Your task to perform on an android device: open sync settings in chrome Image 0: 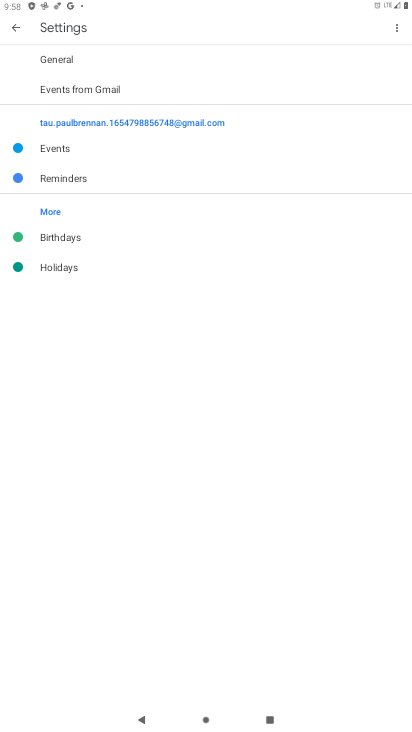
Step 0: press home button
Your task to perform on an android device: open sync settings in chrome Image 1: 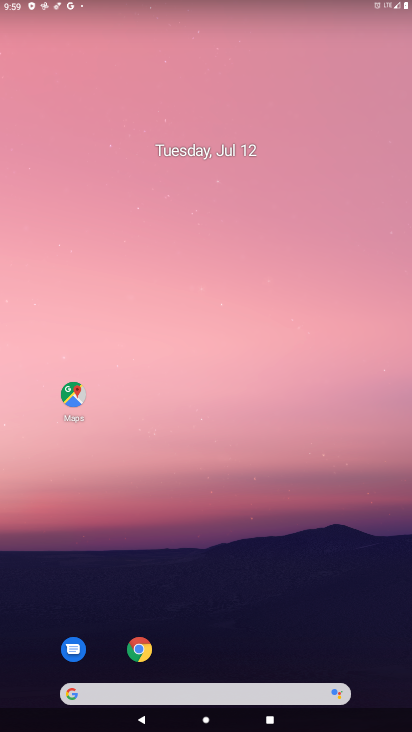
Step 1: click (147, 656)
Your task to perform on an android device: open sync settings in chrome Image 2: 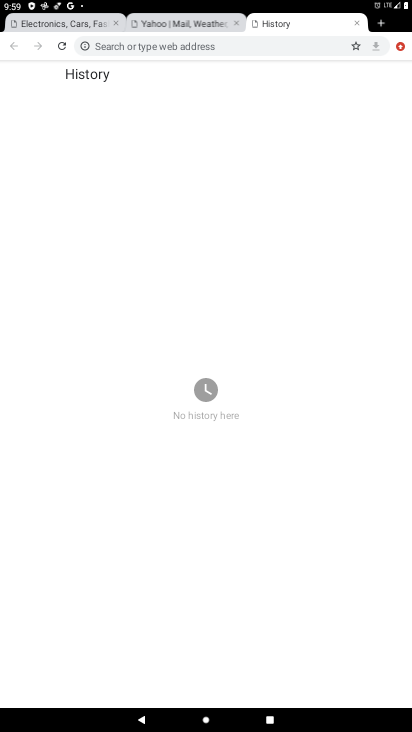
Step 2: click (279, 45)
Your task to perform on an android device: open sync settings in chrome Image 3: 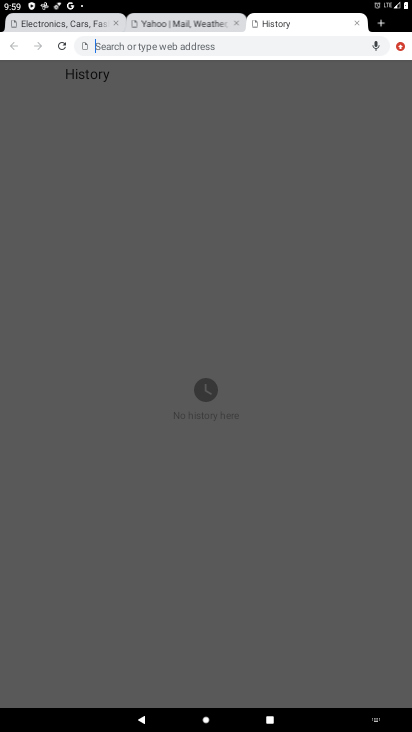
Step 3: click (398, 44)
Your task to perform on an android device: open sync settings in chrome Image 4: 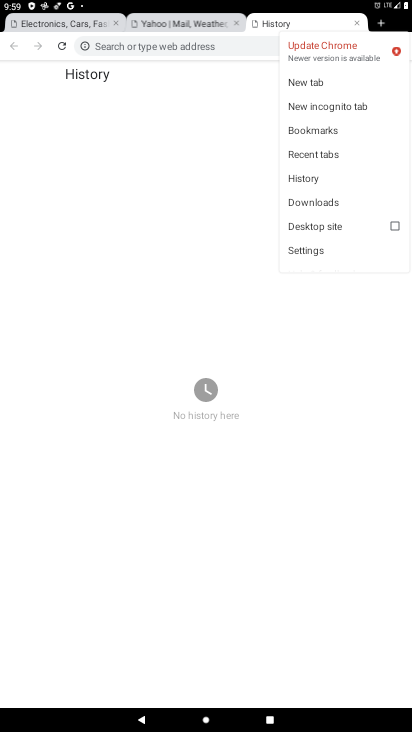
Step 4: click (319, 252)
Your task to perform on an android device: open sync settings in chrome Image 5: 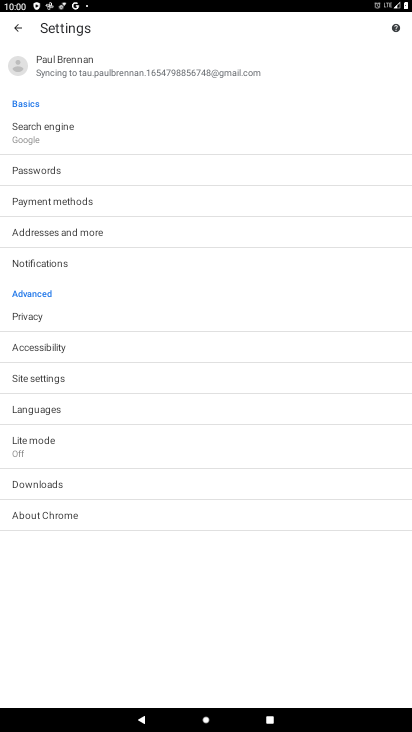
Step 5: click (176, 79)
Your task to perform on an android device: open sync settings in chrome Image 6: 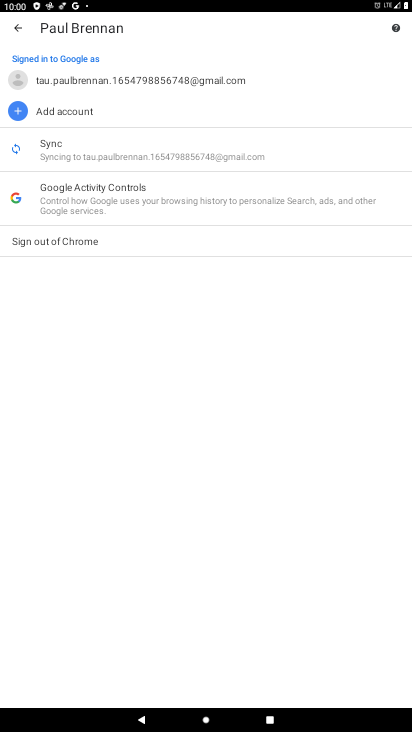
Step 6: click (166, 152)
Your task to perform on an android device: open sync settings in chrome Image 7: 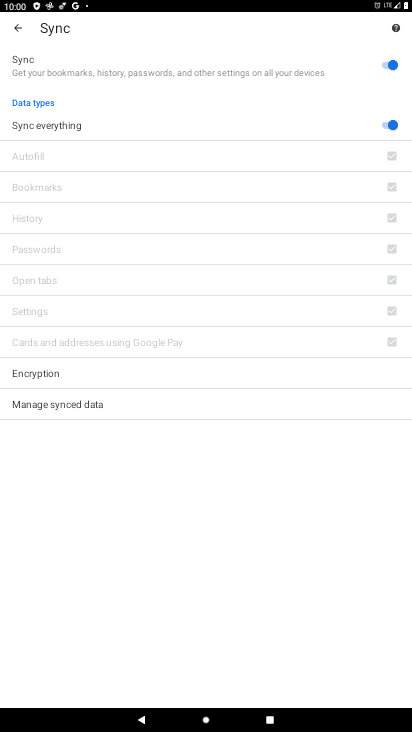
Step 7: task complete